Your task to perform on an android device: toggle translation in the chrome app Image 0: 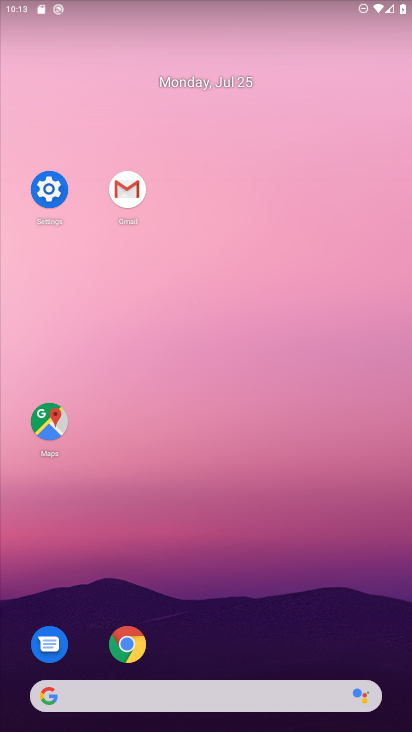
Step 0: click (132, 657)
Your task to perform on an android device: toggle translation in the chrome app Image 1: 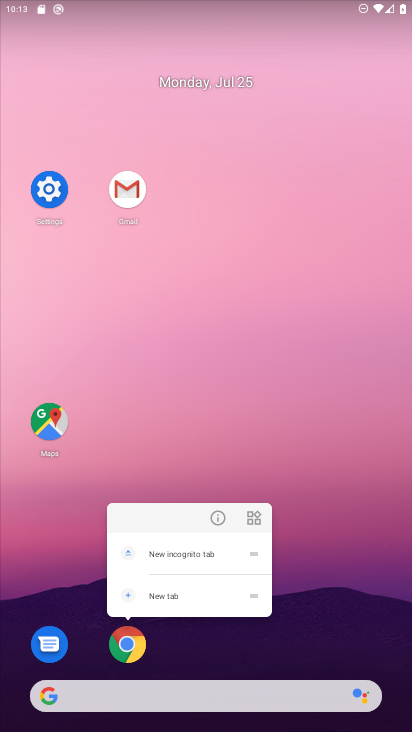
Step 1: click (127, 643)
Your task to perform on an android device: toggle translation in the chrome app Image 2: 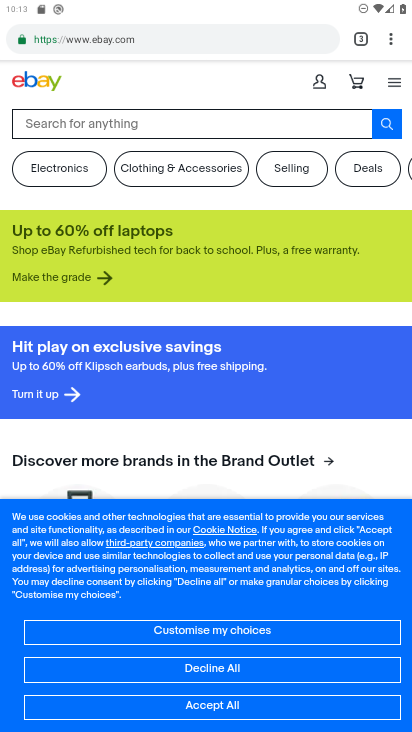
Step 2: click (392, 50)
Your task to perform on an android device: toggle translation in the chrome app Image 3: 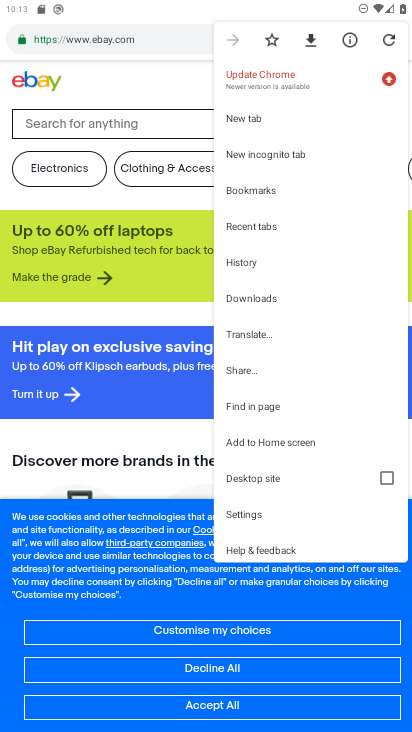
Step 3: click (243, 511)
Your task to perform on an android device: toggle translation in the chrome app Image 4: 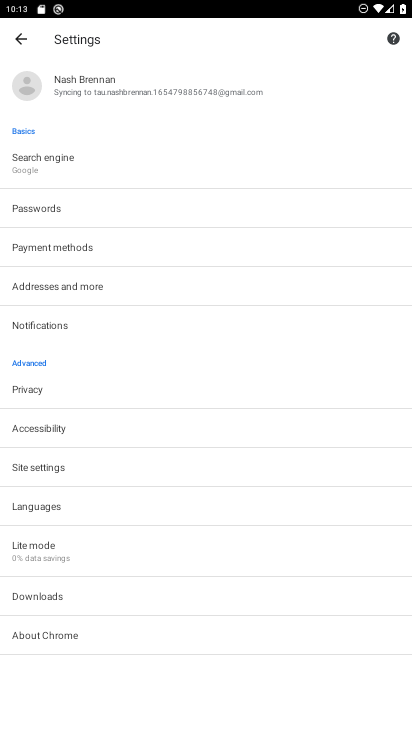
Step 4: click (157, 505)
Your task to perform on an android device: toggle translation in the chrome app Image 5: 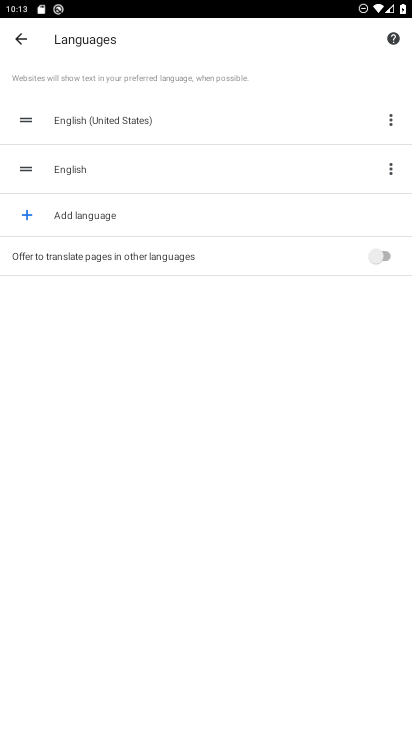
Step 5: click (382, 257)
Your task to perform on an android device: toggle translation in the chrome app Image 6: 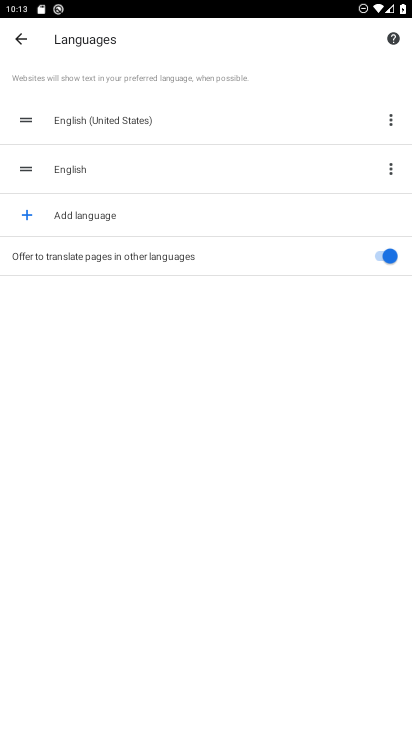
Step 6: task complete